Your task to perform on an android device: Open maps Image 0: 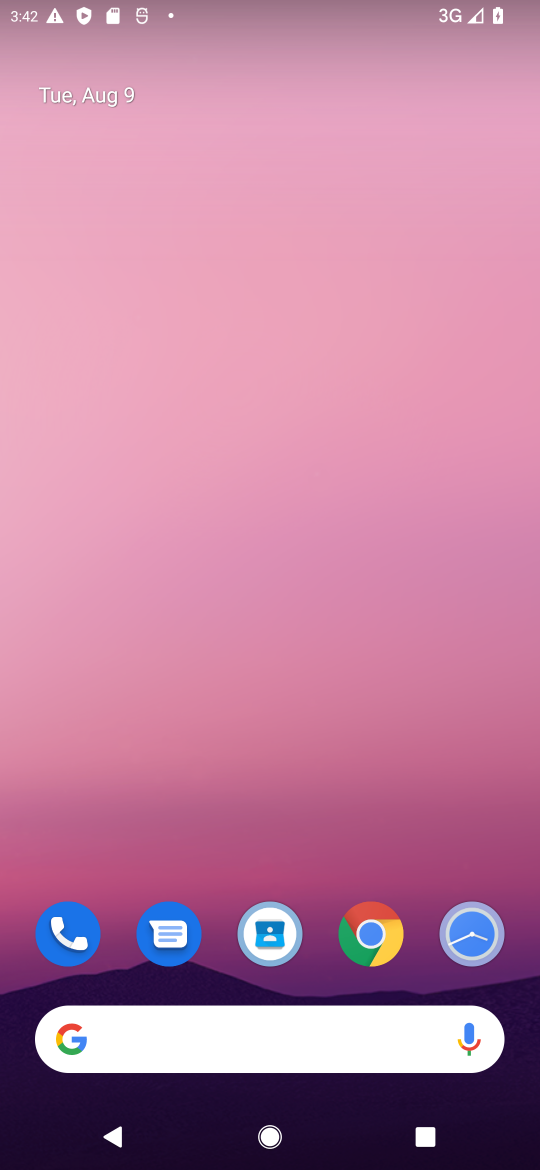
Step 0: drag from (320, 988) to (405, 175)
Your task to perform on an android device: Open maps Image 1: 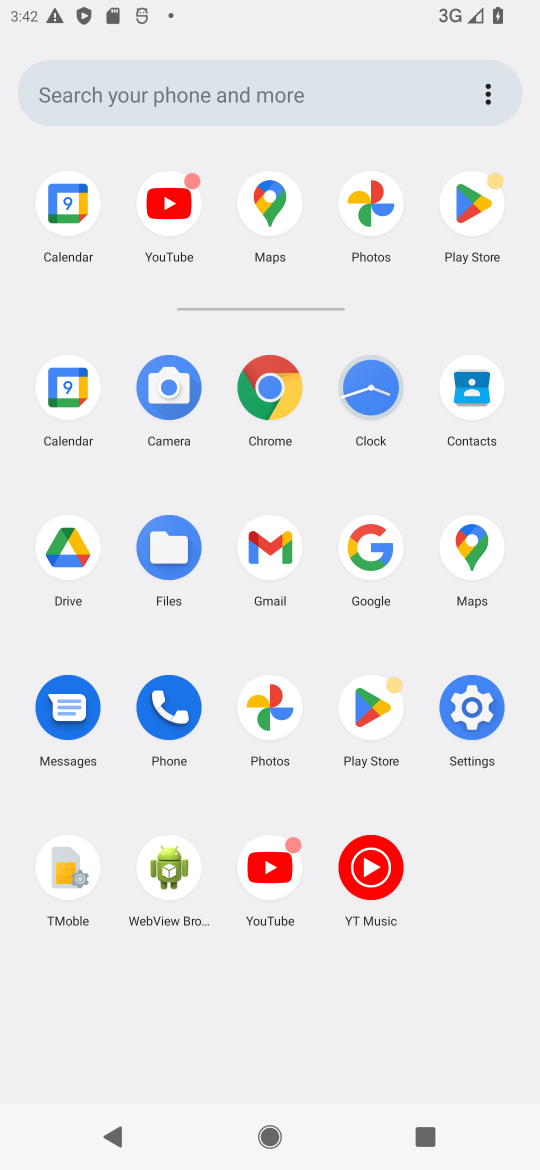
Step 1: click (446, 556)
Your task to perform on an android device: Open maps Image 2: 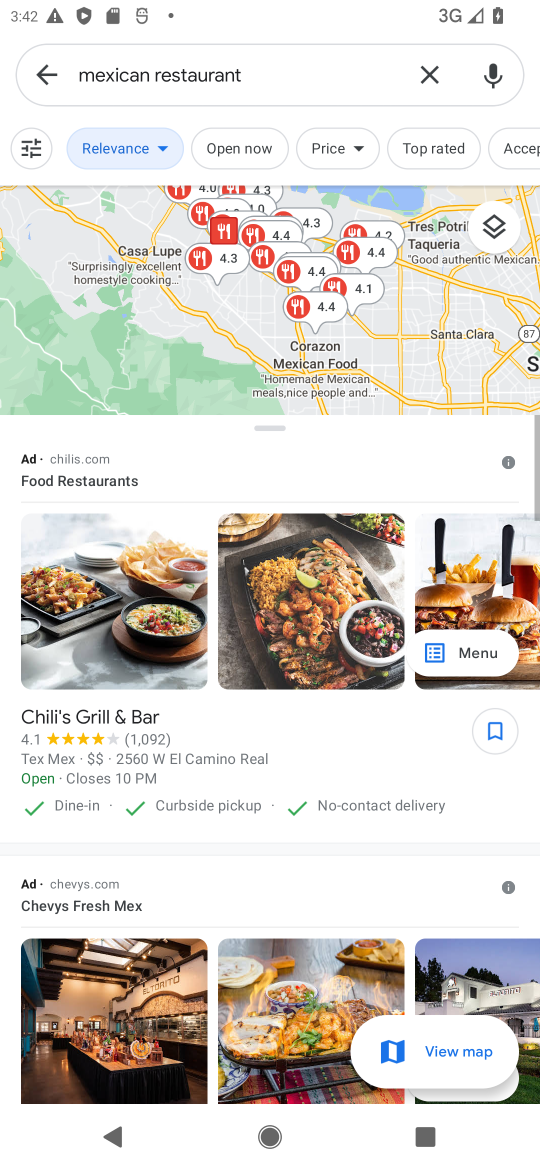
Step 2: task complete